Your task to perform on an android device: turn on bluetooth scan Image 0: 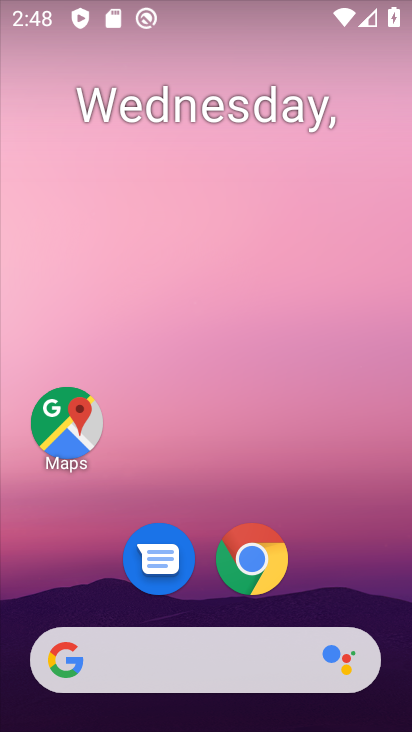
Step 0: drag from (353, 466) to (377, 196)
Your task to perform on an android device: turn on bluetooth scan Image 1: 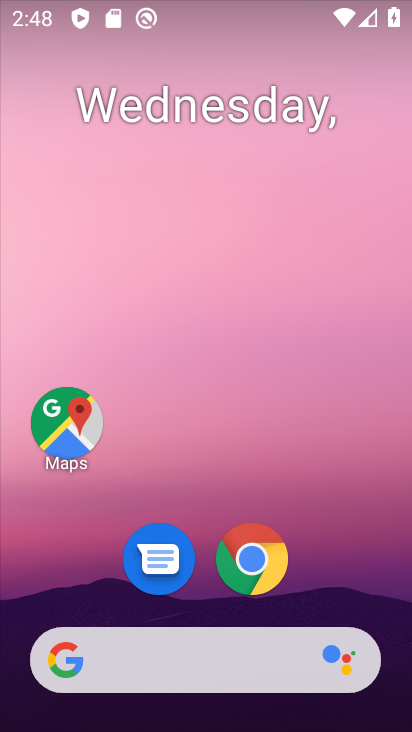
Step 1: drag from (355, 587) to (331, 203)
Your task to perform on an android device: turn on bluetooth scan Image 2: 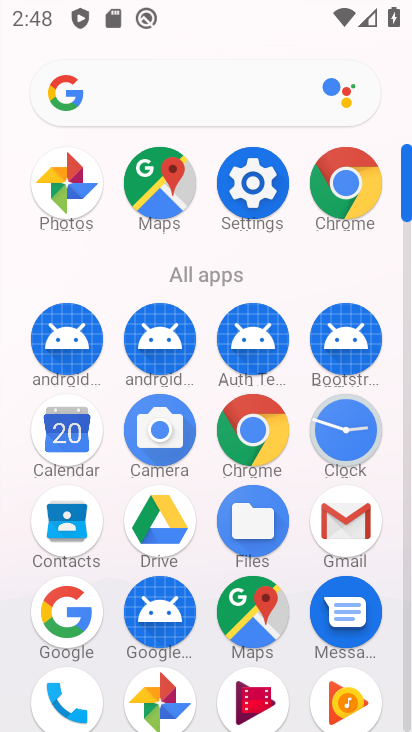
Step 2: click (272, 192)
Your task to perform on an android device: turn on bluetooth scan Image 3: 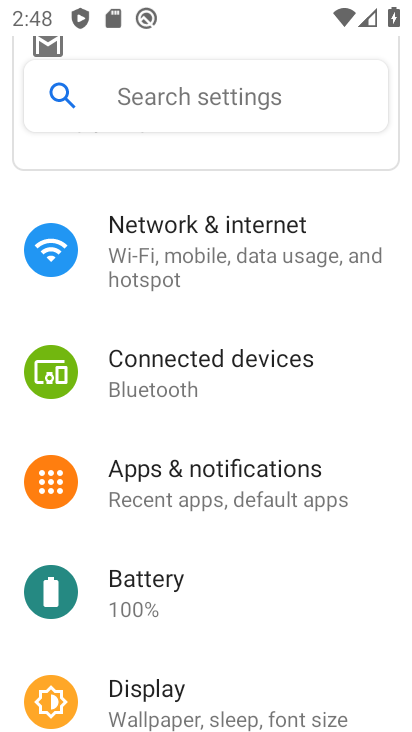
Step 3: drag from (276, 597) to (329, 279)
Your task to perform on an android device: turn on bluetooth scan Image 4: 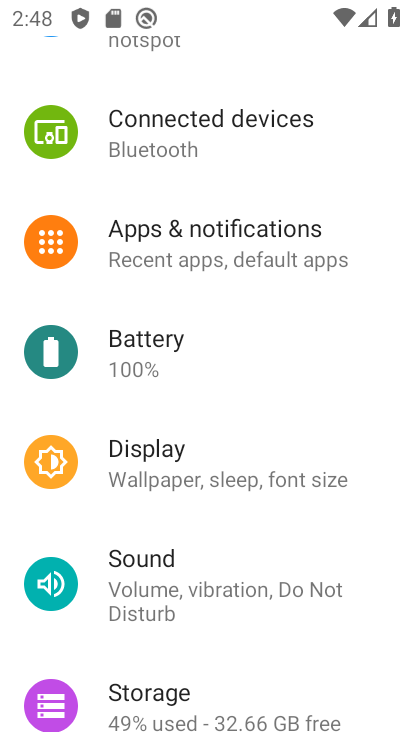
Step 4: drag from (299, 624) to (324, 377)
Your task to perform on an android device: turn on bluetooth scan Image 5: 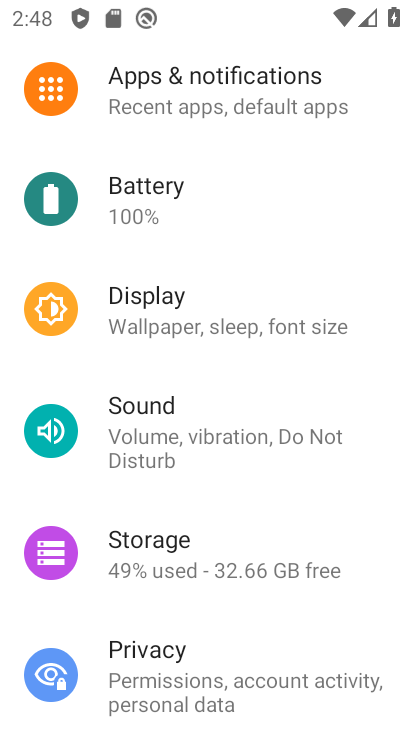
Step 5: drag from (320, 609) to (348, 311)
Your task to perform on an android device: turn on bluetooth scan Image 6: 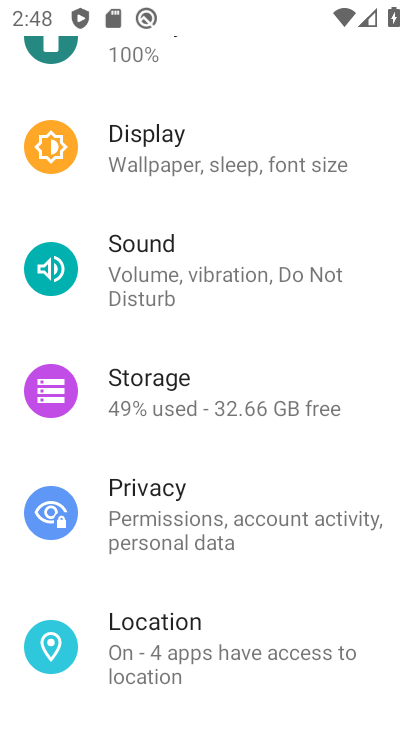
Step 6: drag from (326, 522) to (326, 332)
Your task to perform on an android device: turn on bluetooth scan Image 7: 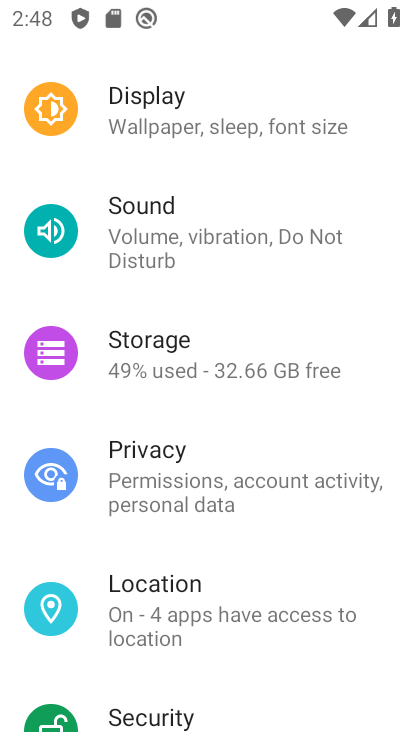
Step 7: drag from (332, 544) to (339, 346)
Your task to perform on an android device: turn on bluetooth scan Image 8: 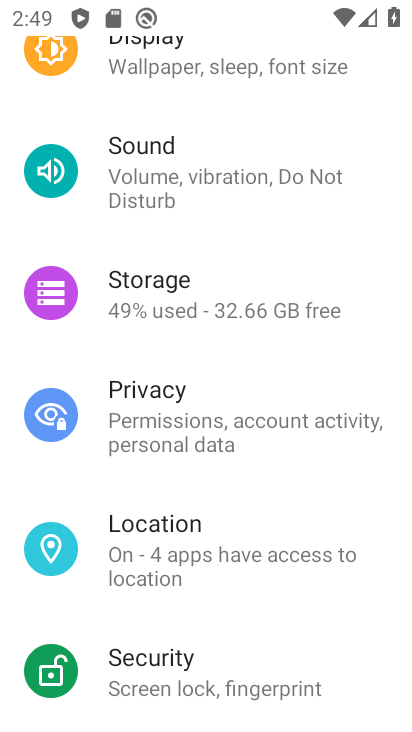
Step 8: drag from (333, 583) to (295, 266)
Your task to perform on an android device: turn on bluetooth scan Image 9: 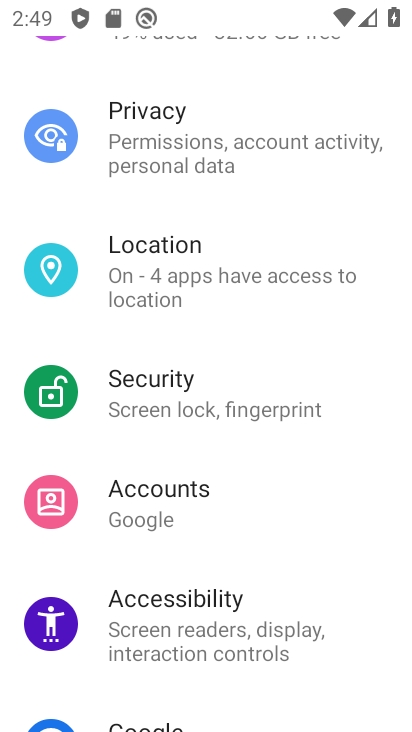
Step 9: drag from (326, 475) to (310, 246)
Your task to perform on an android device: turn on bluetooth scan Image 10: 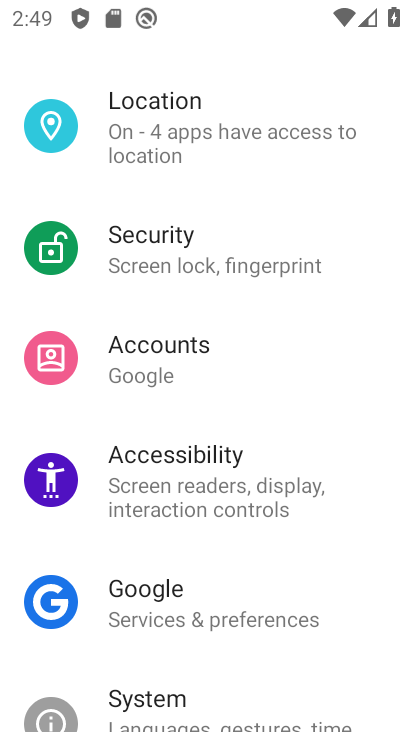
Step 10: drag from (264, 575) to (276, 289)
Your task to perform on an android device: turn on bluetooth scan Image 11: 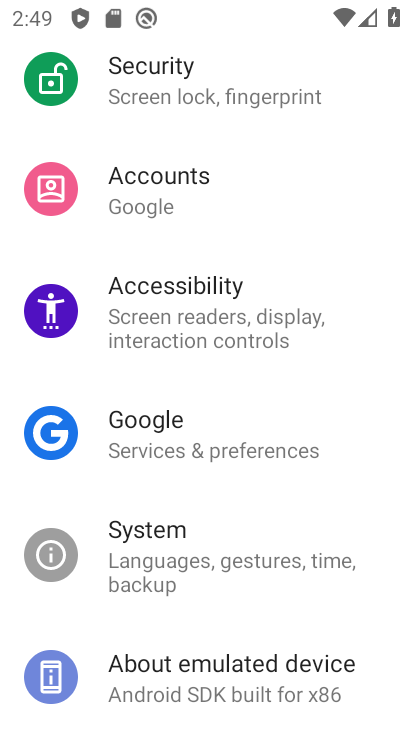
Step 11: drag from (272, 238) to (273, 546)
Your task to perform on an android device: turn on bluetooth scan Image 12: 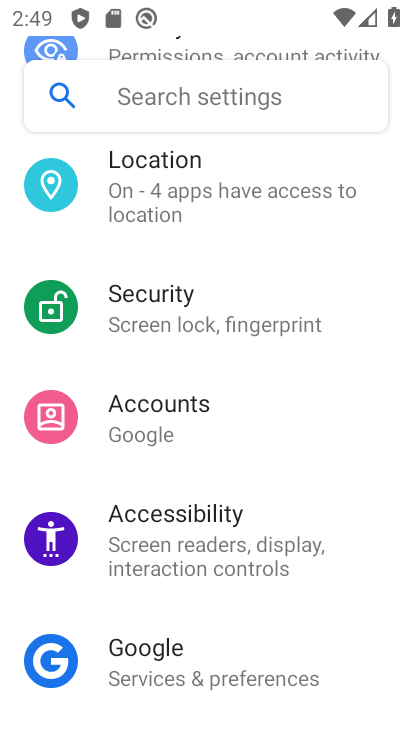
Step 12: click (204, 201)
Your task to perform on an android device: turn on bluetooth scan Image 13: 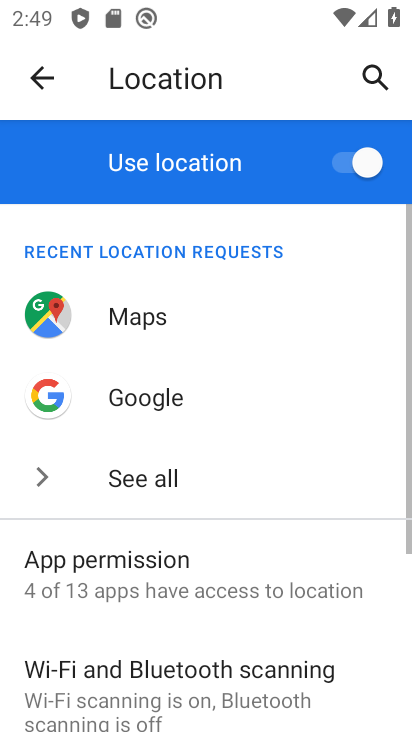
Step 13: drag from (250, 588) to (269, 412)
Your task to perform on an android device: turn on bluetooth scan Image 14: 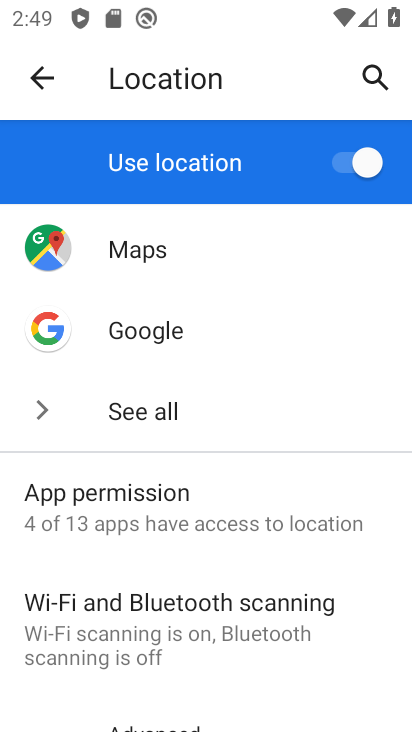
Step 14: click (226, 614)
Your task to perform on an android device: turn on bluetooth scan Image 15: 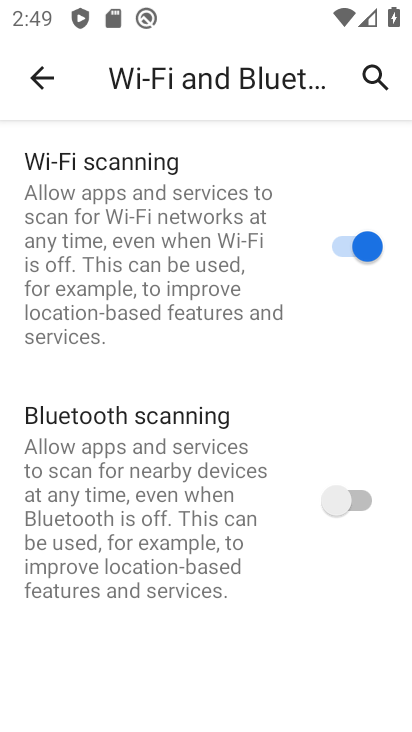
Step 15: click (355, 511)
Your task to perform on an android device: turn on bluetooth scan Image 16: 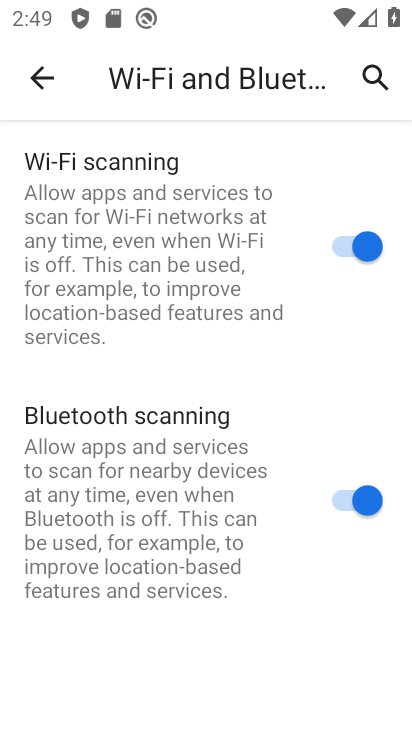
Step 16: task complete